Your task to perform on an android device: change alarm snooze length Image 0: 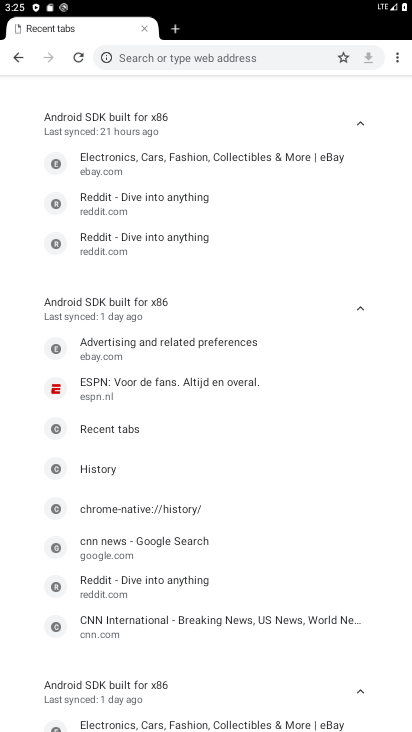
Step 0: press home button
Your task to perform on an android device: change alarm snooze length Image 1: 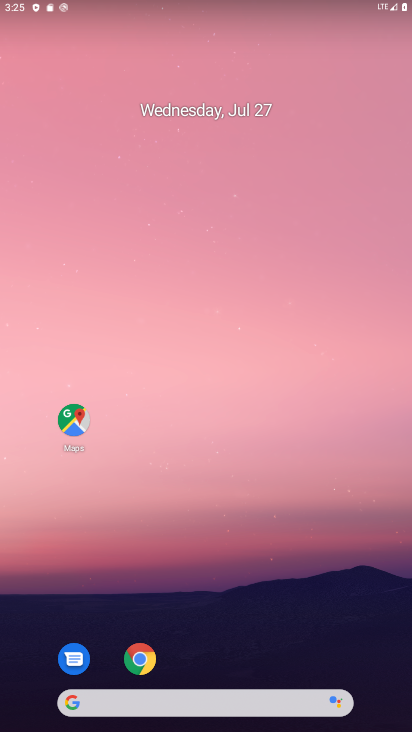
Step 1: drag from (236, 667) to (216, 73)
Your task to perform on an android device: change alarm snooze length Image 2: 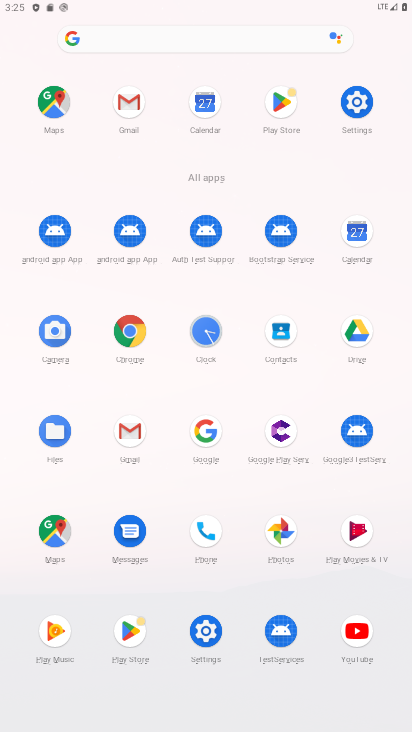
Step 2: click (205, 336)
Your task to perform on an android device: change alarm snooze length Image 3: 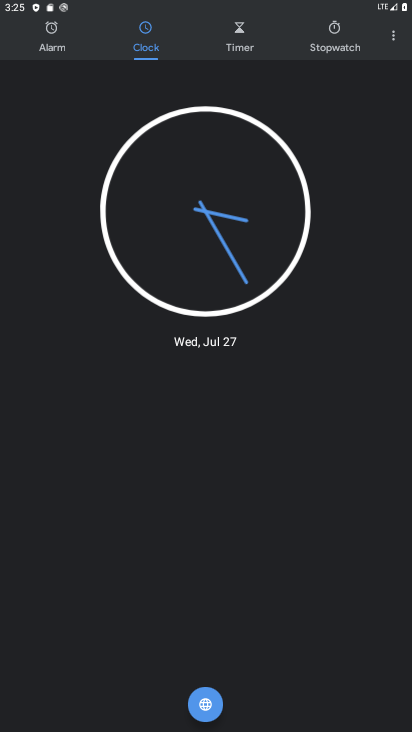
Step 3: click (398, 41)
Your task to perform on an android device: change alarm snooze length Image 4: 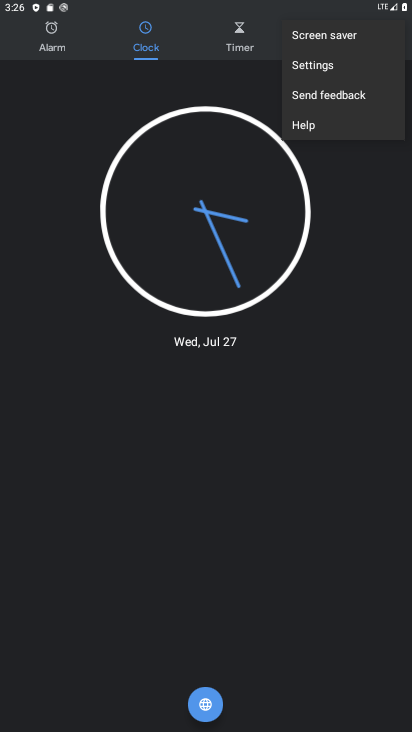
Step 4: click (321, 73)
Your task to perform on an android device: change alarm snooze length Image 5: 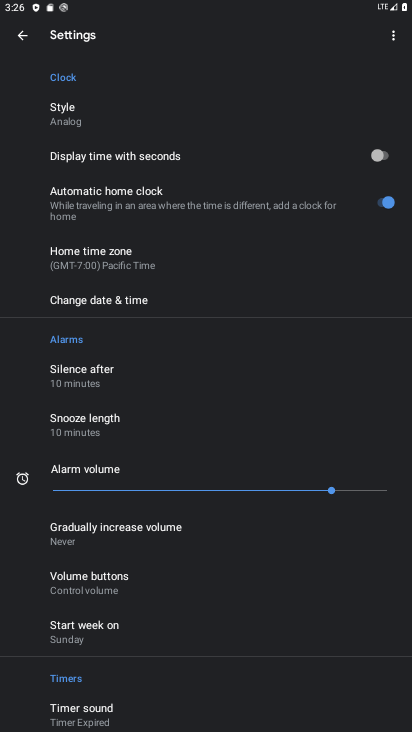
Step 5: click (93, 433)
Your task to perform on an android device: change alarm snooze length Image 6: 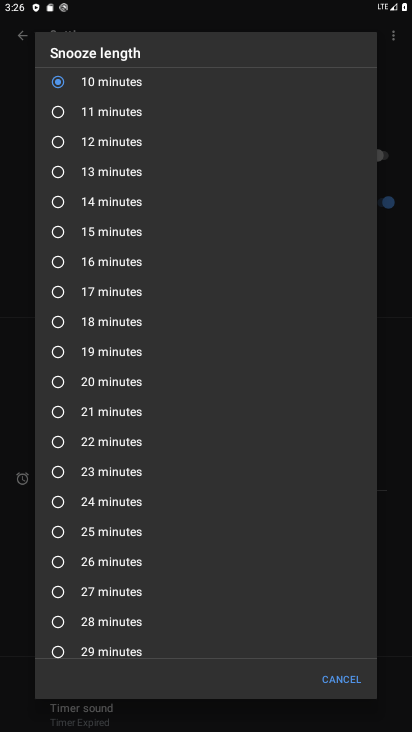
Step 6: click (59, 144)
Your task to perform on an android device: change alarm snooze length Image 7: 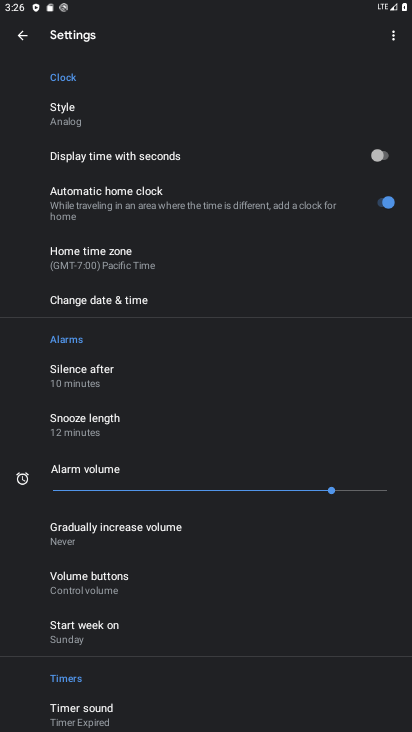
Step 7: task complete